Your task to perform on an android device: Set the phone to "Do not disturb". Image 0: 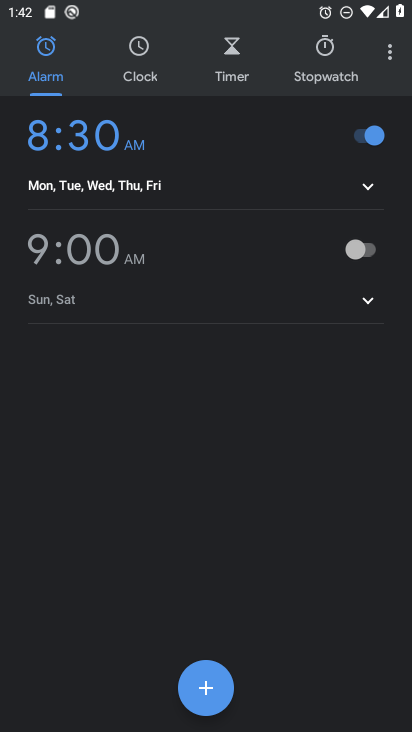
Step 0: press home button
Your task to perform on an android device: Set the phone to "Do not disturb". Image 1: 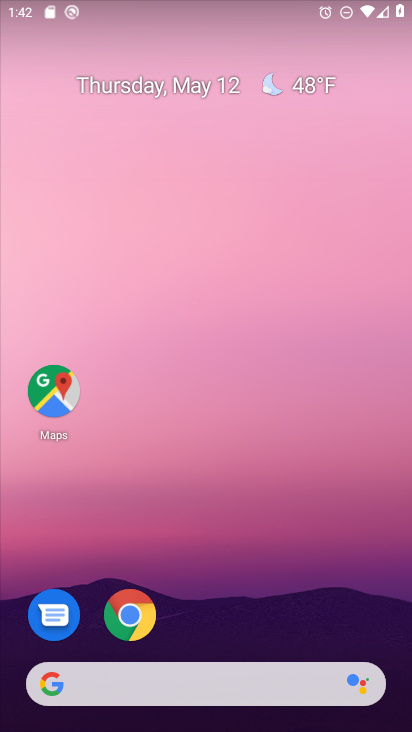
Step 1: drag from (327, 682) to (267, 119)
Your task to perform on an android device: Set the phone to "Do not disturb". Image 2: 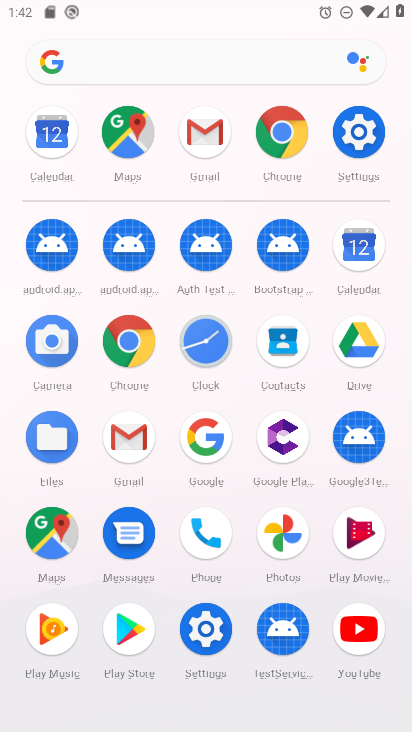
Step 2: click (360, 141)
Your task to perform on an android device: Set the phone to "Do not disturb". Image 3: 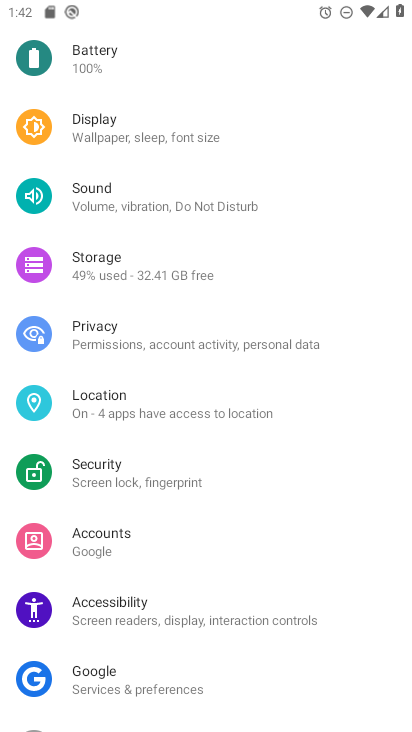
Step 3: drag from (231, 198) to (234, 698)
Your task to perform on an android device: Set the phone to "Do not disturb". Image 4: 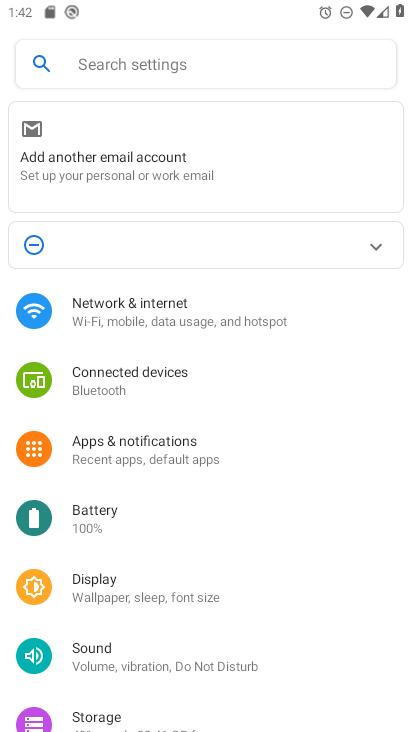
Step 4: drag from (235, 697) to (236, 464)
Your task to perform on an android device: Set the phone to "Do not disturb". Image 5: 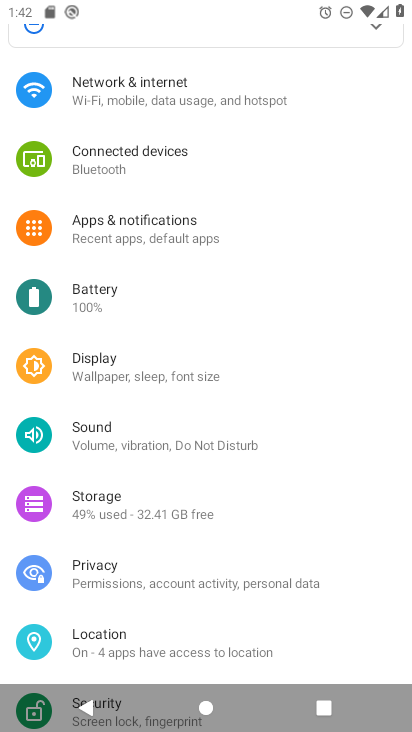
Step 5: click (223, 447)
Your task to perform on an android device: Set the phone to "Do not disturb". Image 6: 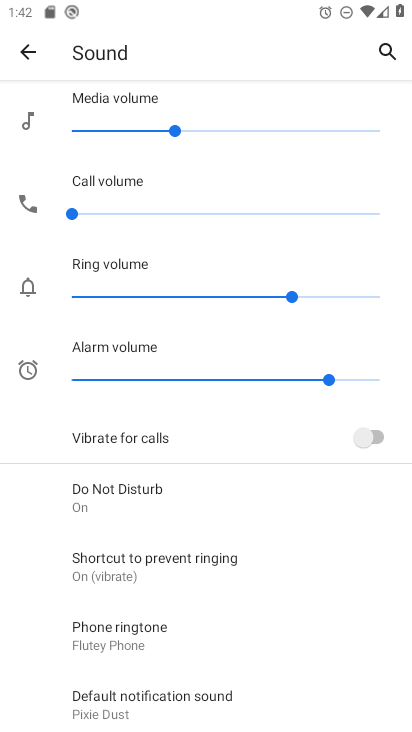
Step 6: drag from (292, 662) to (308, 167)
Your task to perform on an android device: Set the phone to "Do not disturb". Image 7: 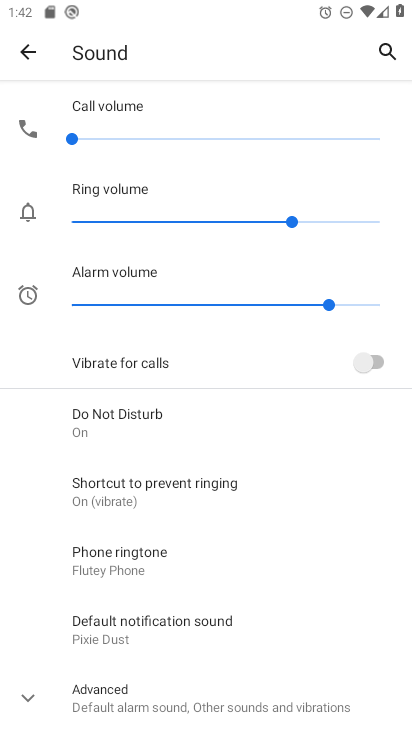
Step 7: click (213, 425)
Your task to perform on an android device: Set the phone to "Do not disturb". Image 8: 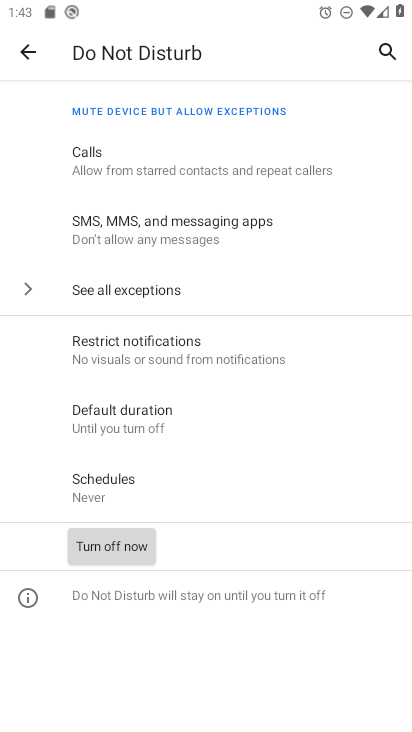
Step 8: click (113, 539)
Your task to perform on an android device: Set the phone to "Do not disturb". Image 9: 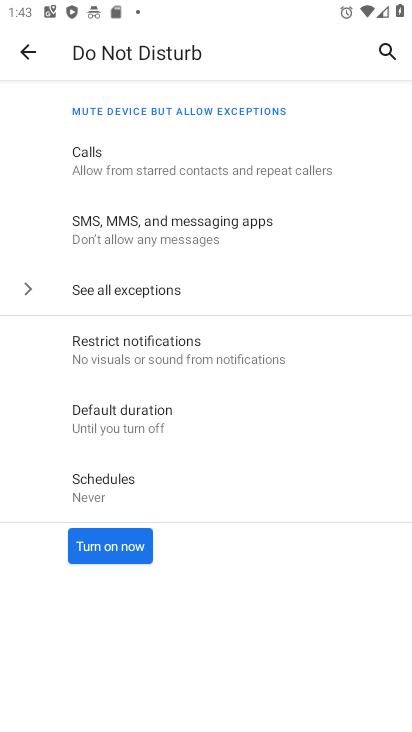
Step 9: task complete